Your task to perform on an android device: Open CNN.com Image 0: 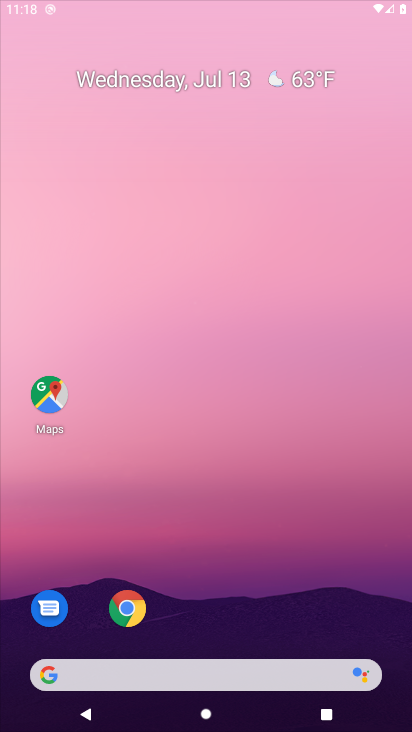
Step 0: press home button
Your task to perform on an android device: Open CNN.com Image 1: 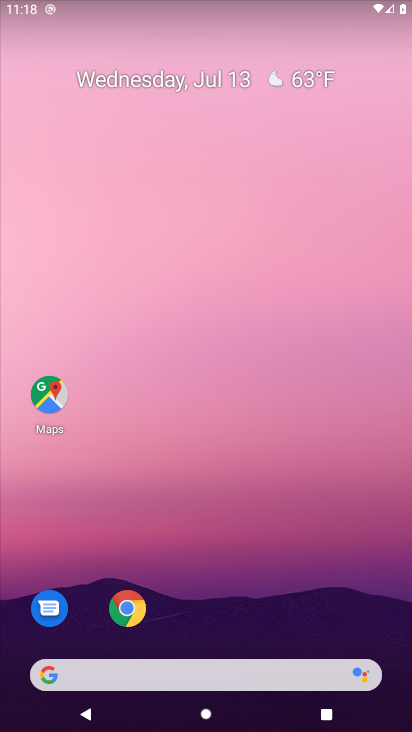
Step 1: click (44, 681)
Your task to perform on an android device: Open CNN.com Image 2: 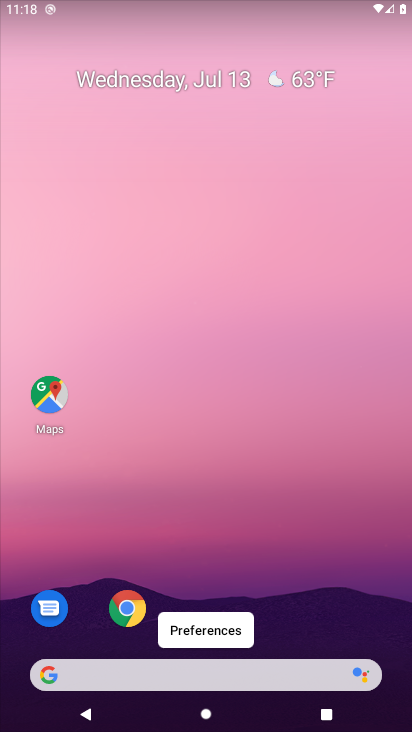
Step 2: click (44, 681)
Your task to perform on an android device: Open CNN.com Image 3: 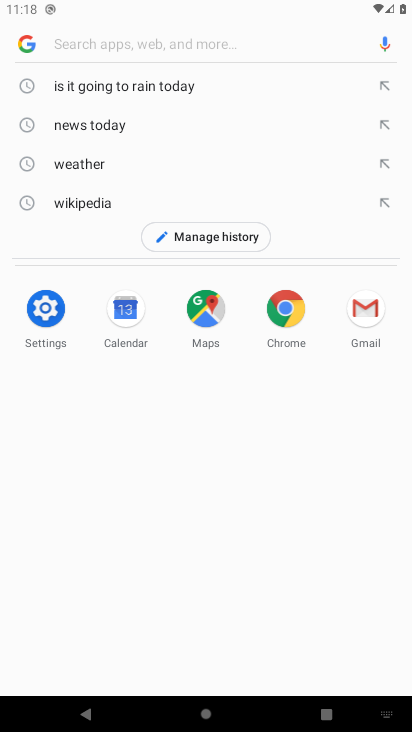
Step 3: type "CNN.com"
Your task to perform on an android device: Open CNN.com Image 4: 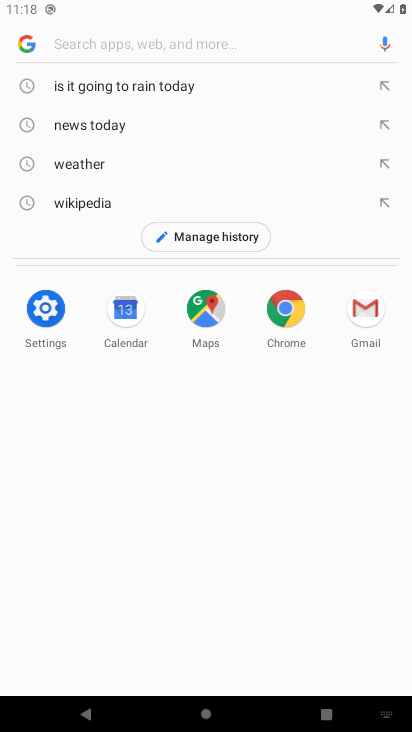
Step 4: click (82, 41)
Your task to perform on an android device: Open CNN.com Image 5: 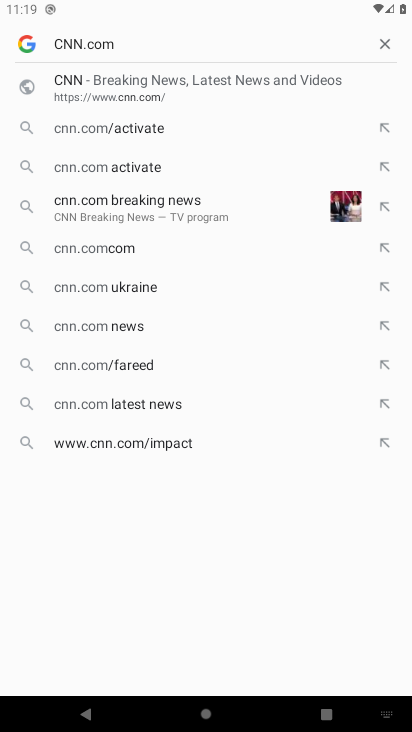
Step 5: press enter
Your task to perform on an android device: Open CNN.com Image 6: 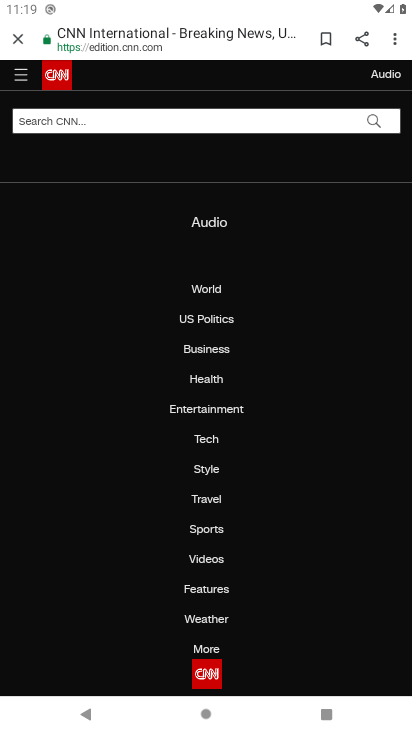
Step 6: task complete